Your task to perform on an android device: Check the weather Image 0: 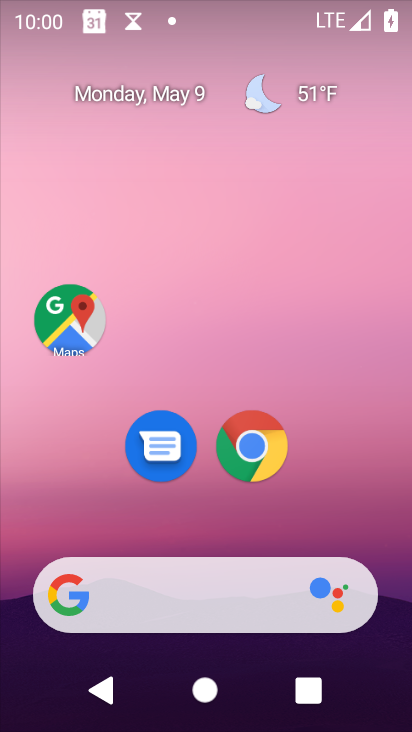
Step 0: click (293, 91)
Your task to perform on an android device: Check the weather Image 1: 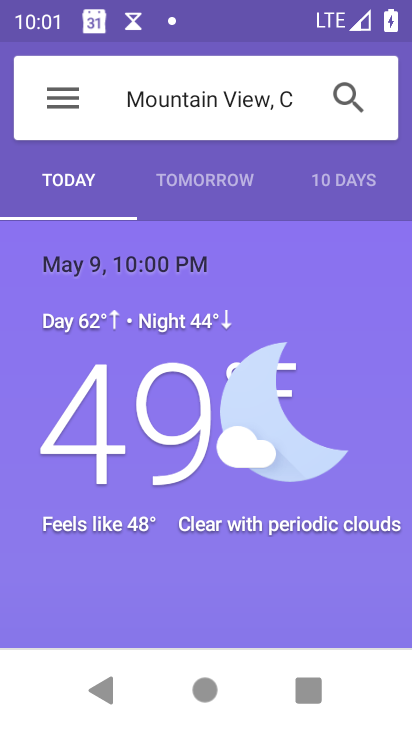
Step 1: task complete